Your task to perform on an android device: change notifications settings Image 0: 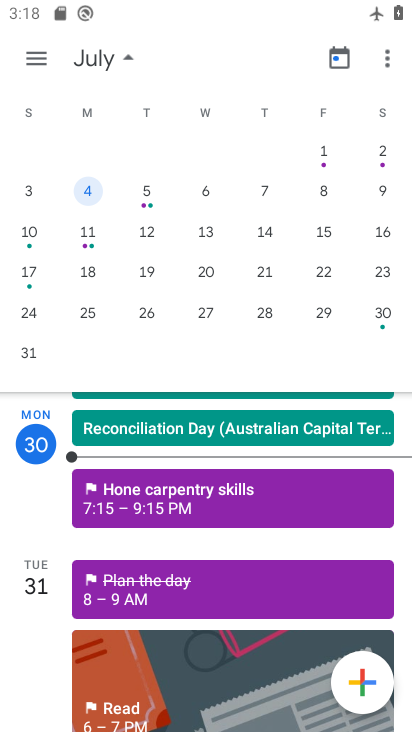
Step 0: press home button
Your task to perform on an android device: change notifications settings Image 1: 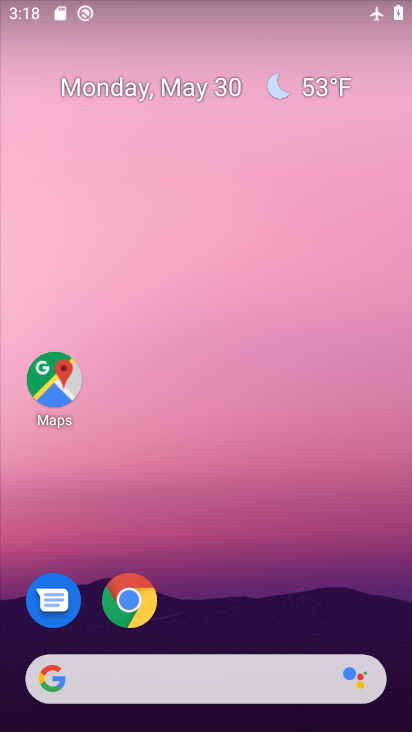
Step 1: drag from (376, 548) to (354, 36)
Your task to perform on an android device: change notifications settings Image 2: 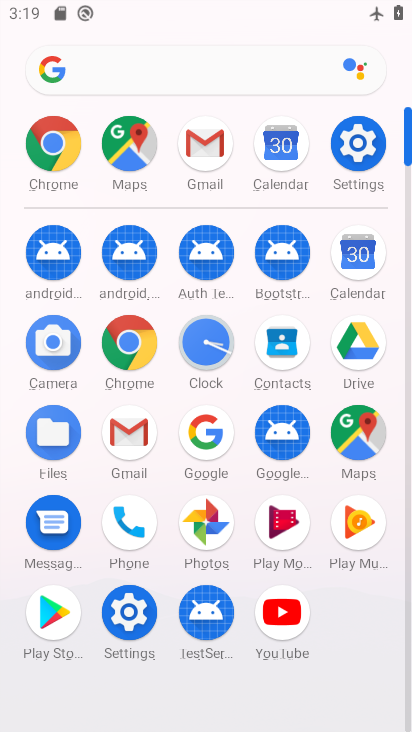
Step 2: click (367, 134)
Your task to perform on an android device: change notifications settings Image 3: 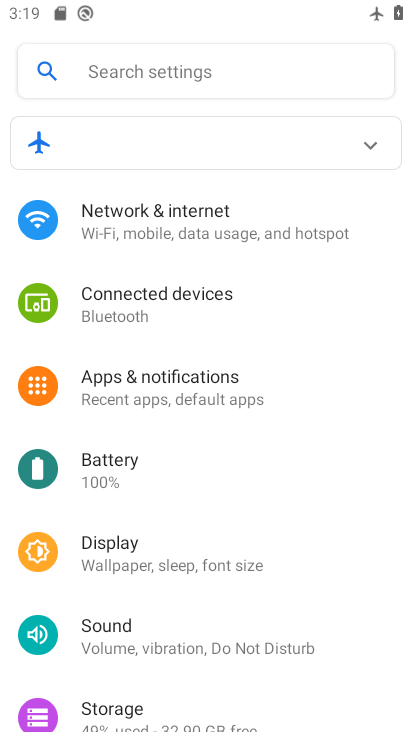
Step 3: click (206, 398)
Your task to perform on an android device: change notifications settings Image 4: 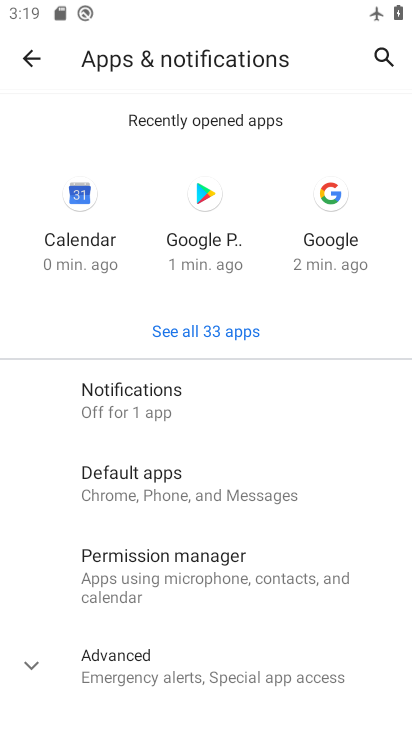
Step 4: click (162, 416)
Your task to perform on an android device: change notifications settings Image 5: 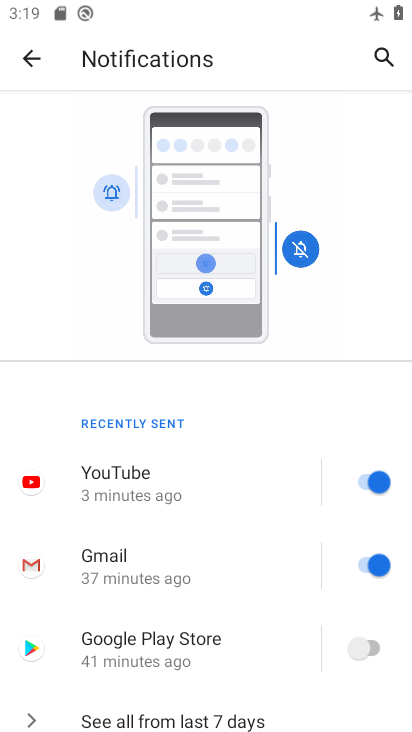
Step 5: drag from (196, 604) to (178, 162)
Your task to perform on an android device: change notifications settings Image 6: 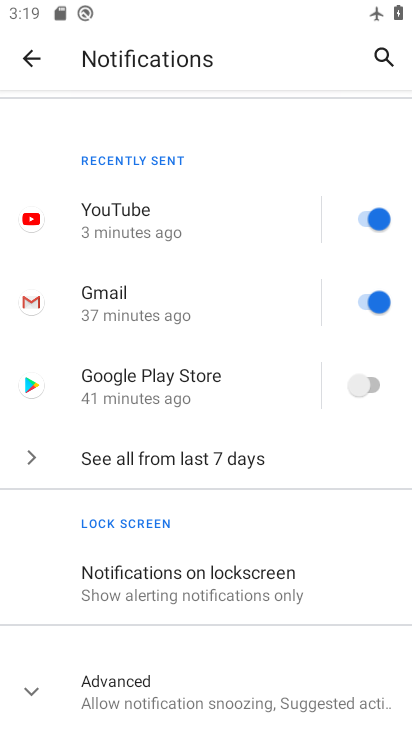
Step 6: click (147, 583)
Your task to perform on an android device: change notifications settings Image 7: 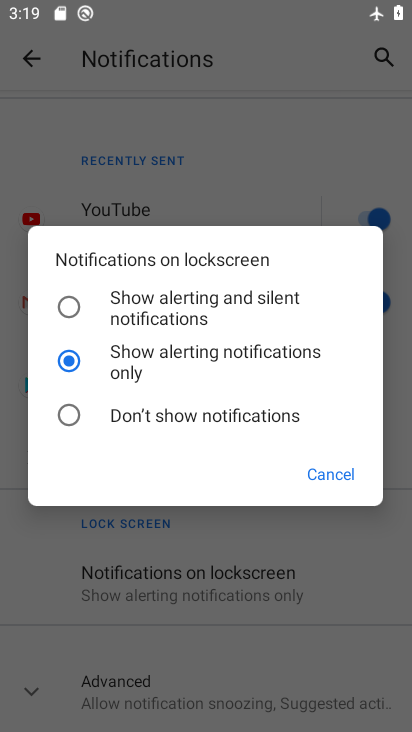
Step 7: click (357, 475)
Your task to perform on an android device: change notifications settings Image 8: 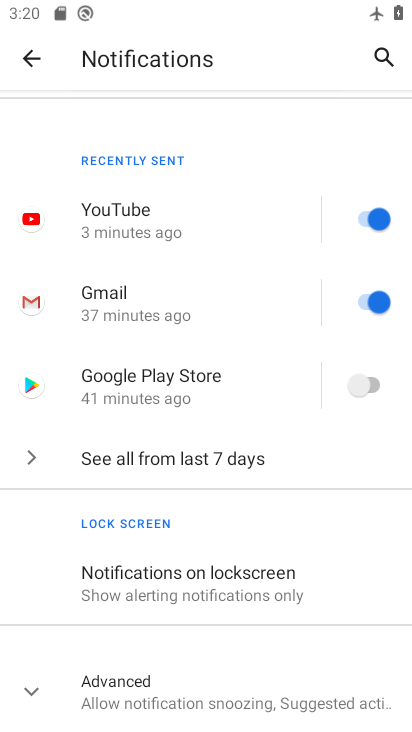
Step 8: click (388, 293)
Your task to perform on an android device: change notifications settings Image 9: 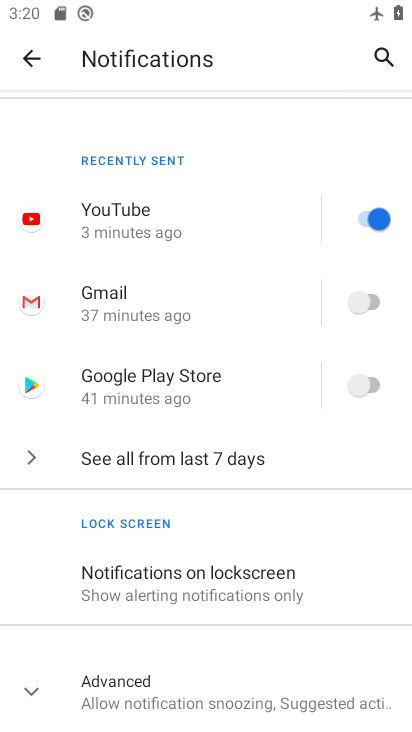
Step 9: task complete